Your task to perform on an android device: open device folders in google photos Image 0: 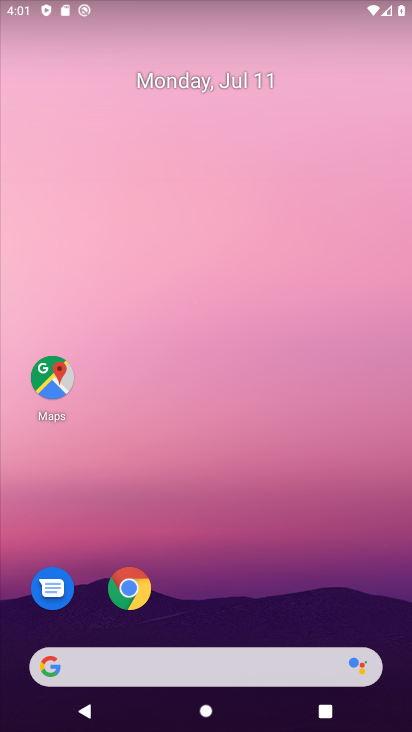
Step 0: drag from (260, 687) to (255, 0)
Your task to perform on an android device: open device folders in google photos Image 1: 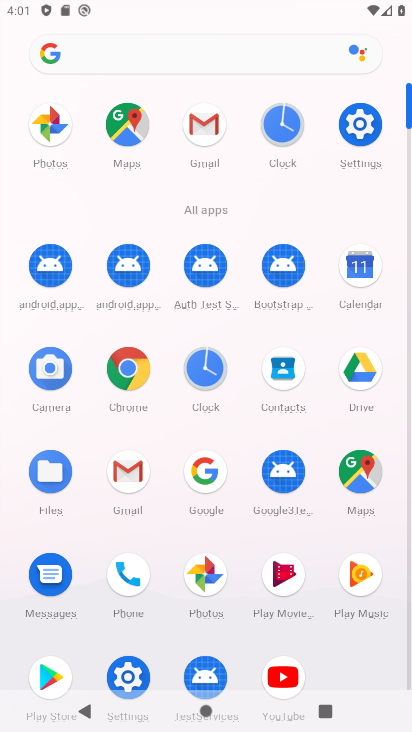
Step 1: click (44, 118)
Your task to perform on an android device: open device folders in google photos Image 2: 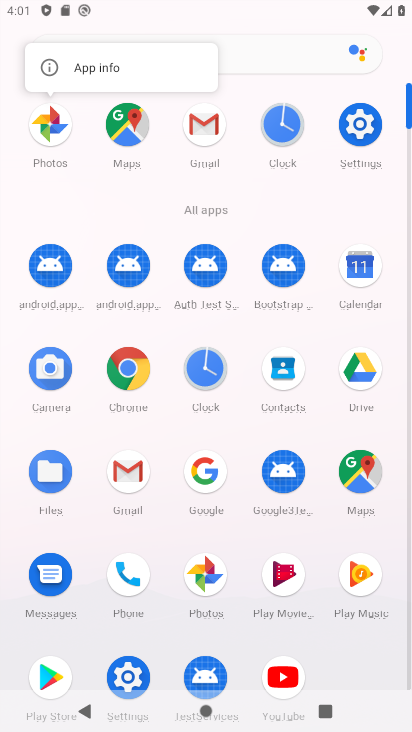
Step 2: click (44, 118)
Your task to perform on an android device: open device folders in google photos Image 3: 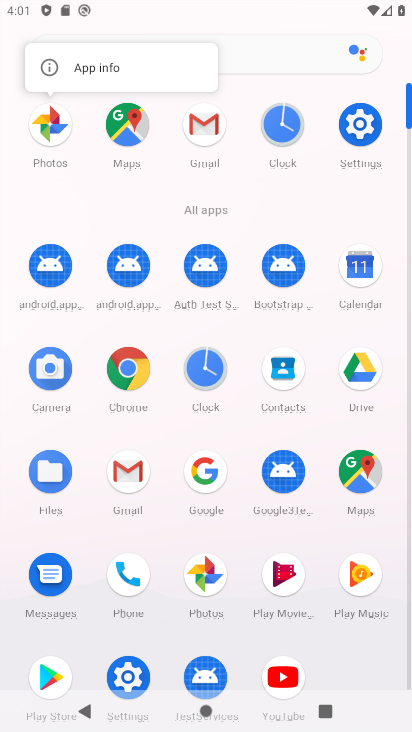
Step 3: click (44, 118)
Your task to perform on an android device: open device folders in google photos Image 4: 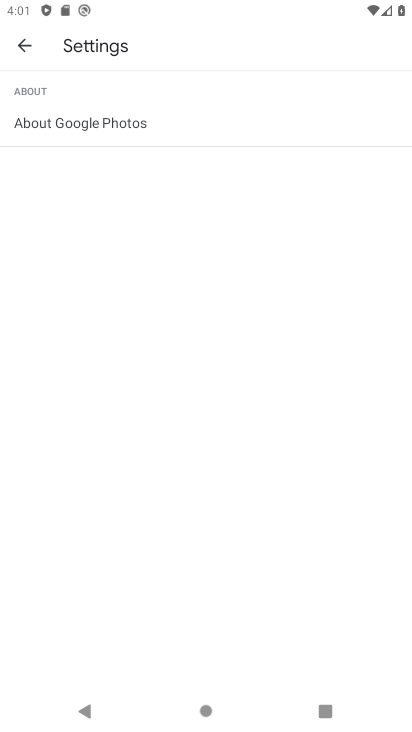
Step 4: click (20, 40)
Your task to perform on an android device: open device folders in google photos Image 5: 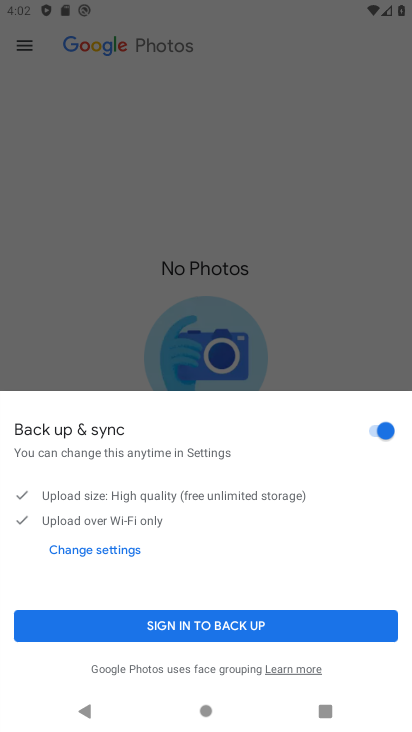
Step 5: click (198, 627)
Your task to perform on an android device: open device folders in google photos Image 6: 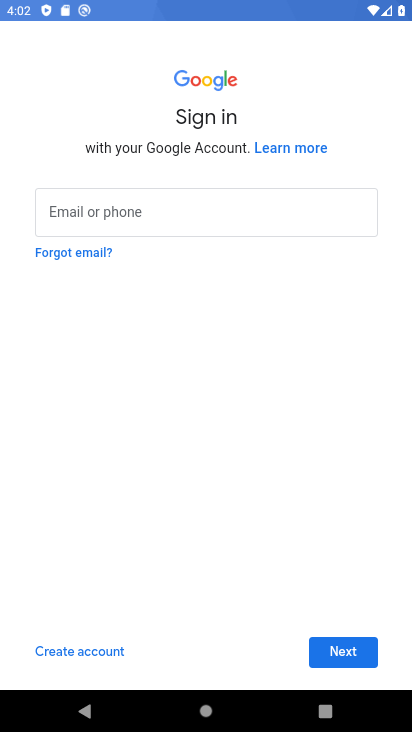
Step 6: task complete